Your task to perform on an android device: What's the weather going to be tomorrow? Image 0: 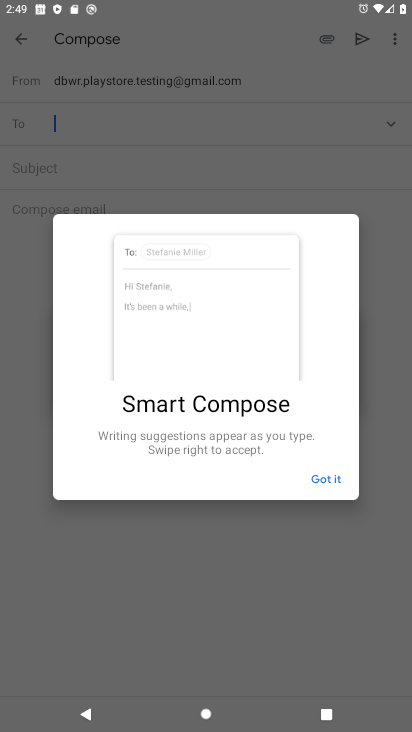
Step 0: press home button
Your task to perform on an android device: What's the weather going to be tomorrow? Image 1: 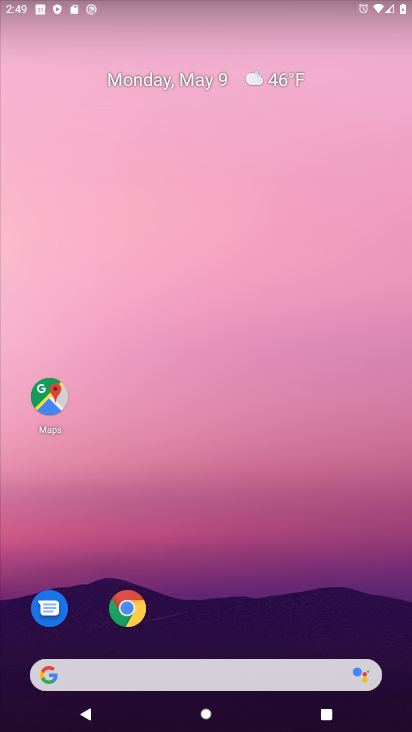
Step 1: click (131, 608)
Your task to perform on an android device: What's the weather going to be tomorrow? Image 2: 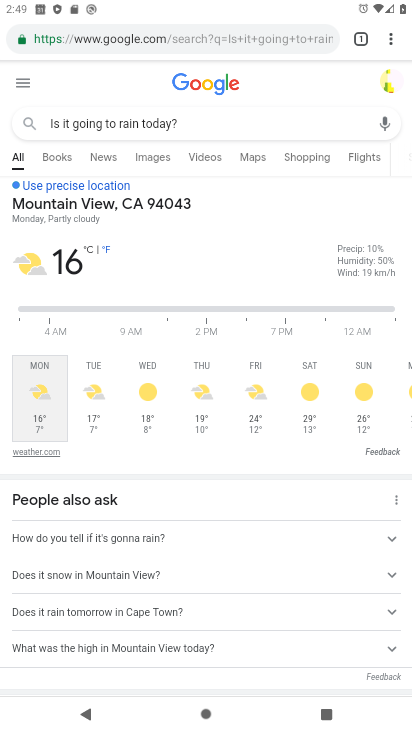
Step 2: click (128, 34)
Your task to perform on an android device: What's the weather going to be tomorrow? Image 3: 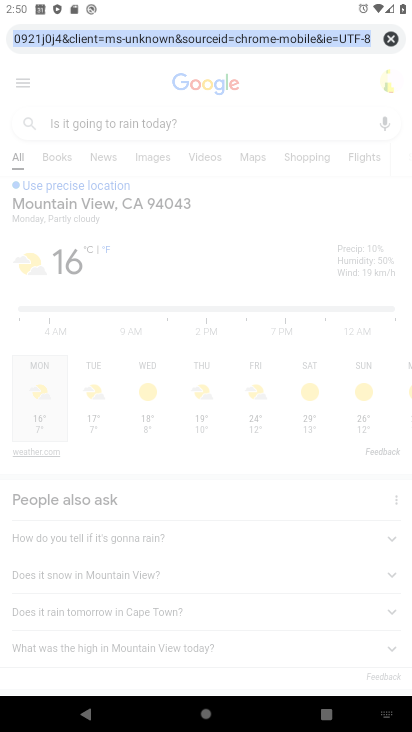
Step 3: type "What's the weather going to be tomorrow?"
Your task to perform on an android device: What's the weather going to be tomorrow? Image 4: 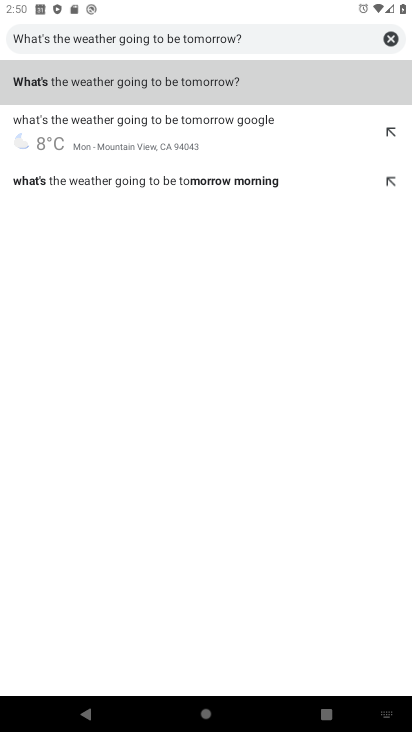
Step 4: click (255, 86)
Your task to perform on an android device: What's the weather going to be tomorrow? Image 5: 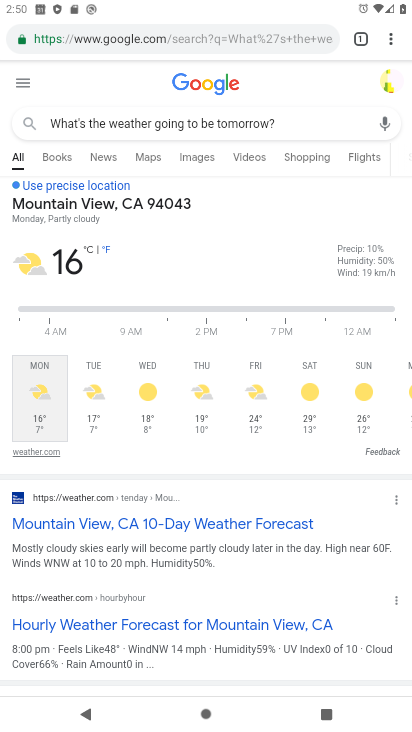
Step 5: task complete